Your task to perform on an android device: Open Reddit.com Image 0: 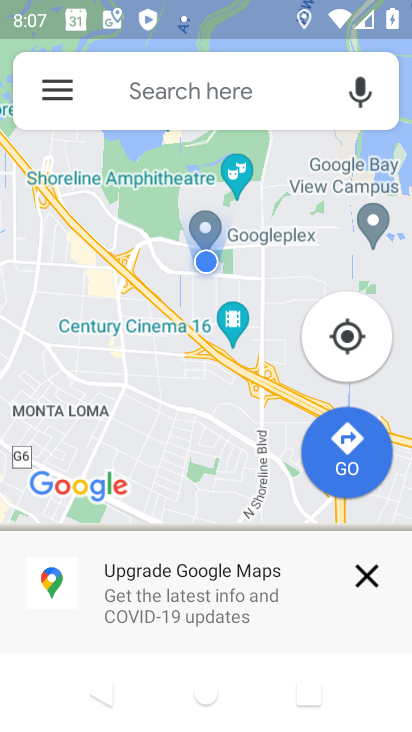
Step 0: press home button
Your task to perform on an android device: Open Reddit.com Image 1: 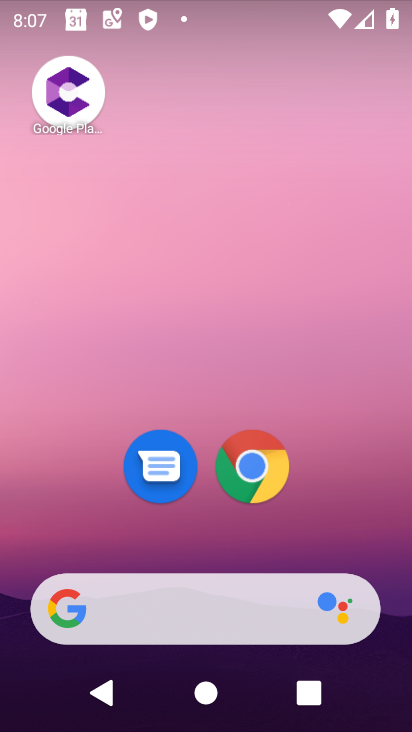
Step 1: drag from (286, 545) to (246, 5)
Your task to perform on an android device: Open Reddit.com Image 2: 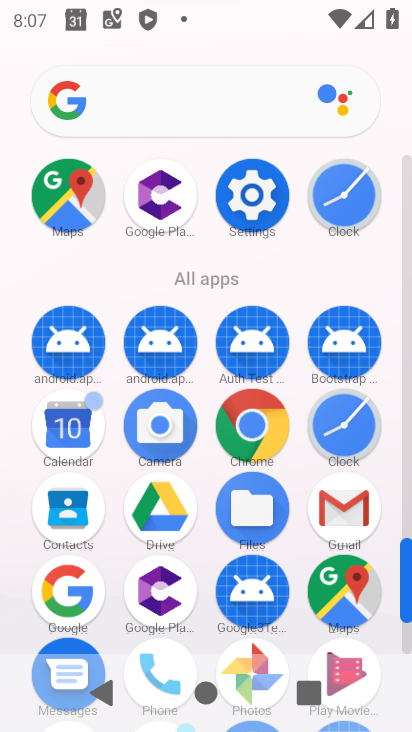
Step 2: click (259, 438)
Your task to perform on an android device: Open Reddit.com Image 3: 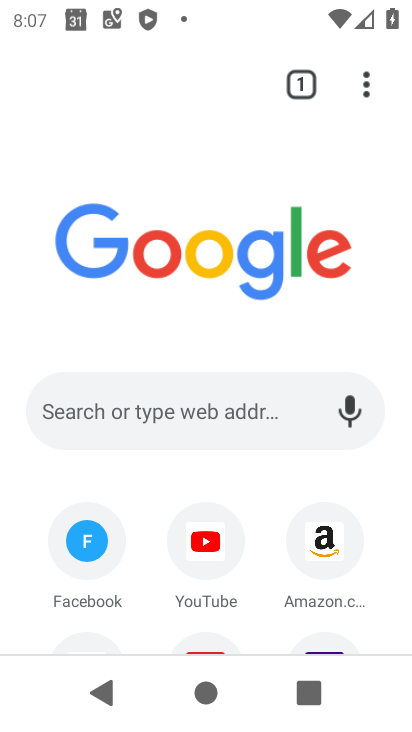
Step 3: click (186, 394)
Your task to perform on an android device: Open Reddit.com Image 4: 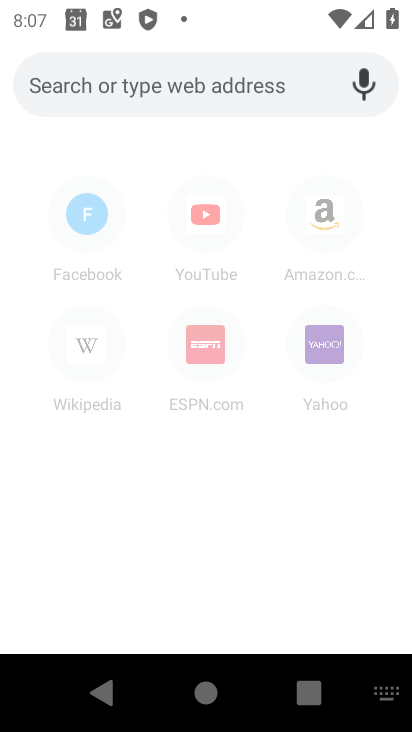
Step 4: type "Reddit.com"
Your task to perform on an android device: Open Reddit.com Image 5: 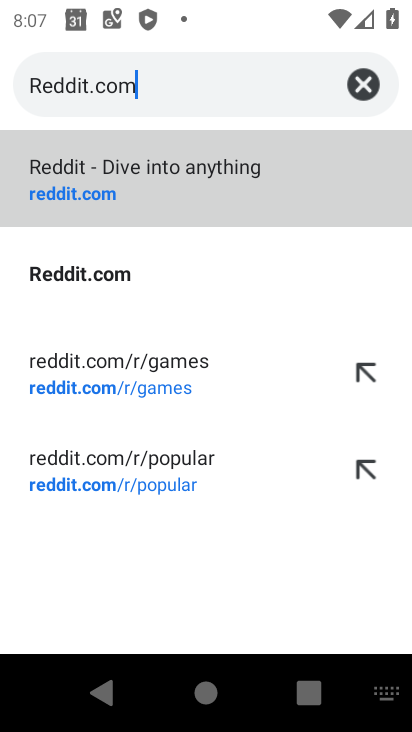
Step 5: click (81, 173)
Your task to perform on an android device: Open Reddit.com Image 6: 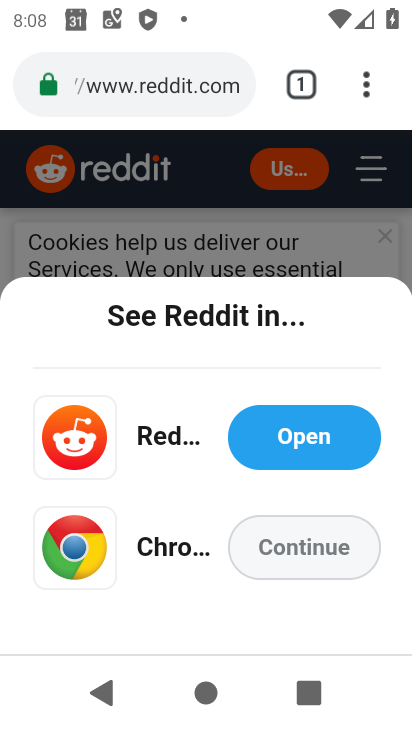
Step 6: task complete